Your task to perform on an android device: Clear the cart on amazon.com. Search for "jbl charge 4" on amazon.com, select the first entry, add it to the cart, then select checkout. Image 0: 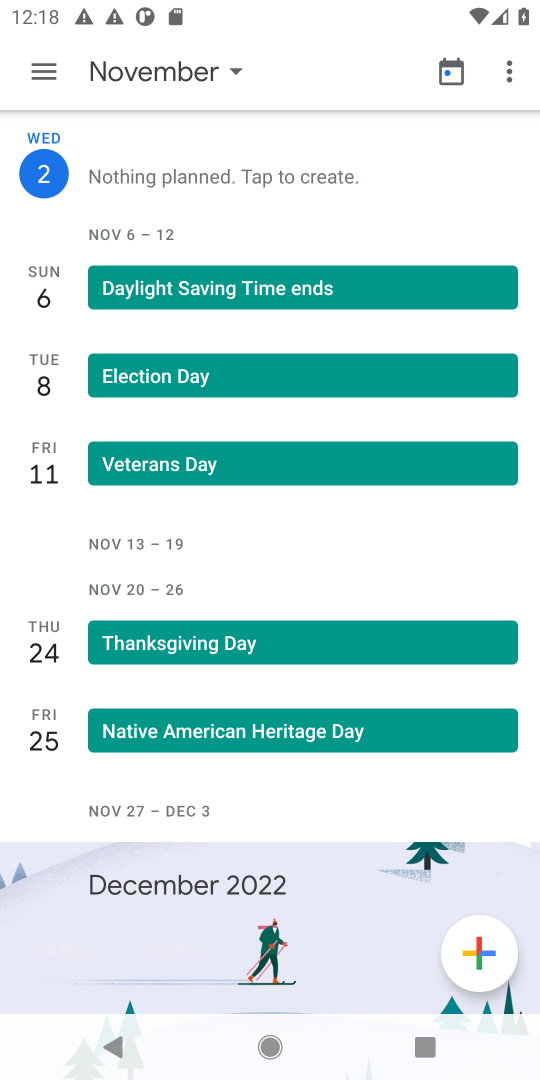
Step 0: press home button
Your task to perform on an android device: Clear the cart on amazon.com. Search for "jbl charge 4" on amazon.com, select the first entry, add it to the cart, then select checkout. Image 1: 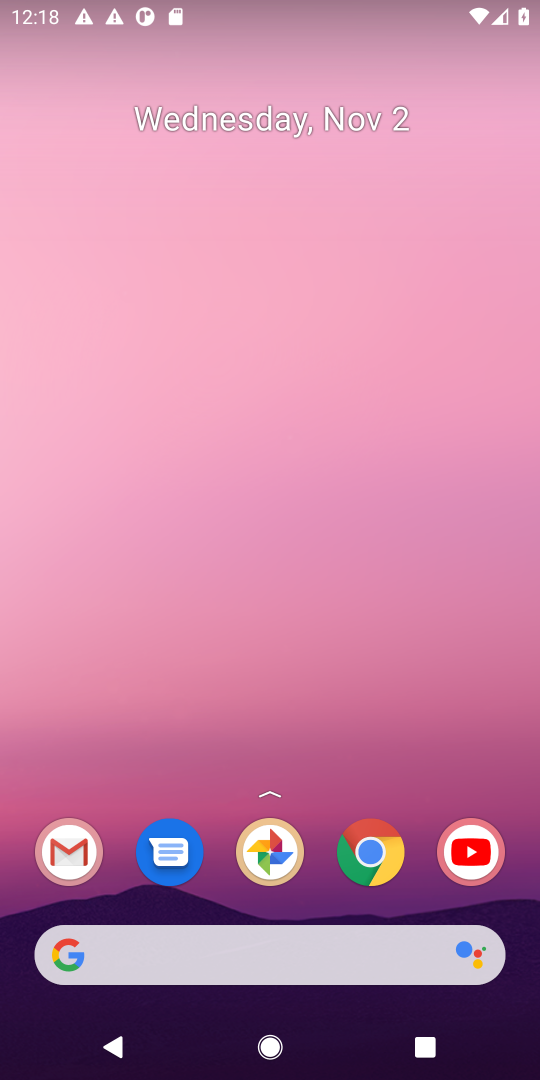
Step 1: click (64, 961)
Your task to perform on an android device: Clear the cart on amazon.com. Search for "jbl charge 4" on amazon.com, select the first entry, add it to the cart, then select checkout. Image 2: 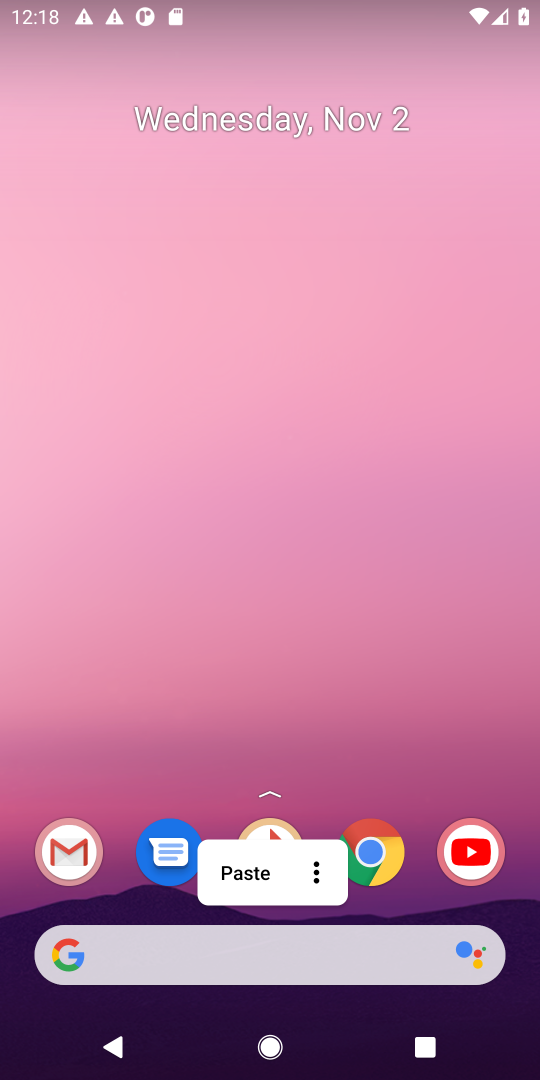
Step 2: click (69, 951)
Your task to perform on an android device: Clear the cart on amazon.com. Search for "jbl charge 4" on amazon.com, select the first entry, add it to the cart, then select checkout. Image 3: 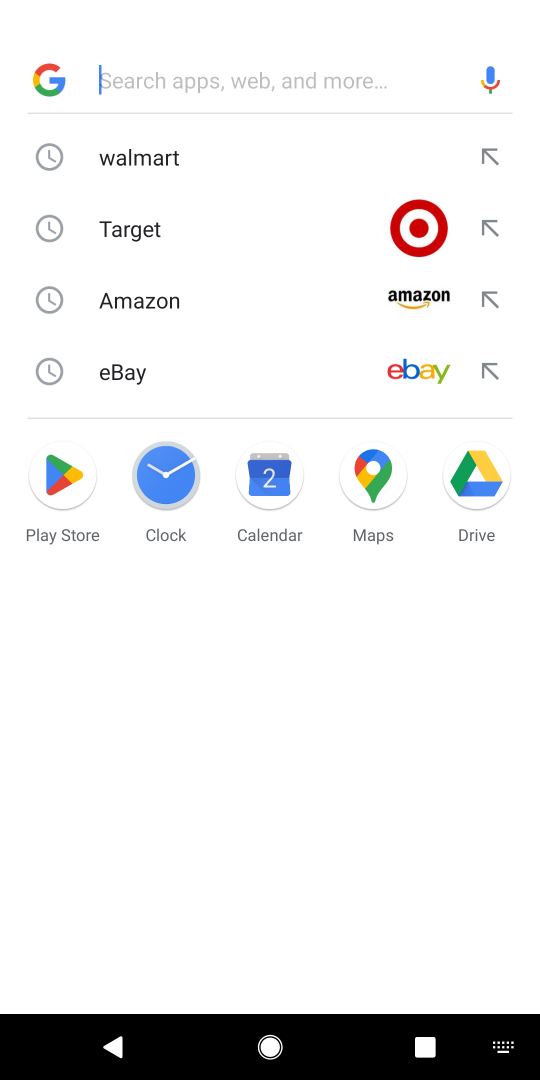
Step 3: click (125, 307)
Your task to perform on an android device: Clear the cart on amazon.com. Search for "jbl charge 4" on amazon.com, select the first entry, add it to the cart, then select checkout. Image 4: 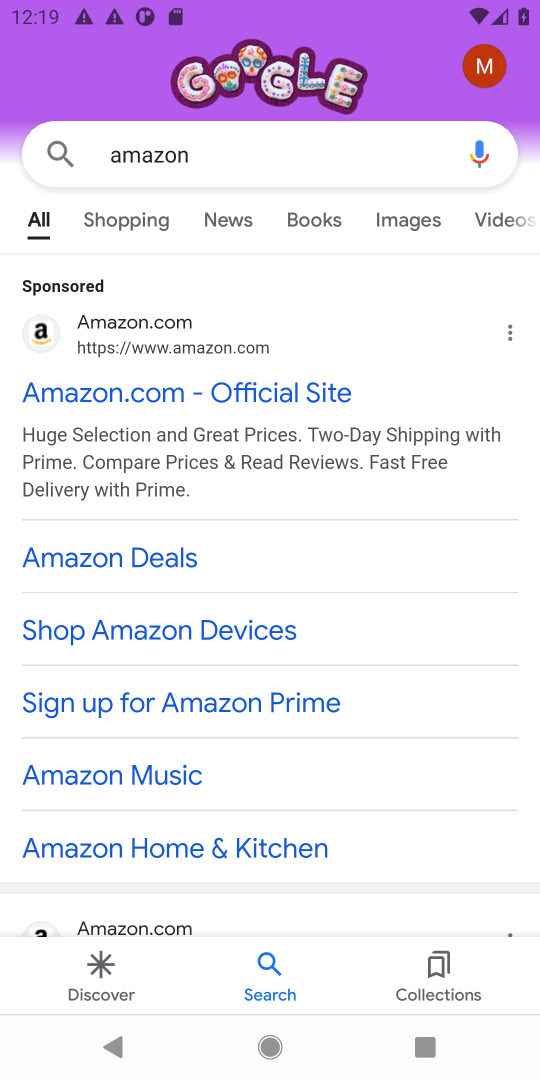
Step 4: drag from (370, 623) to (437, 167)
Your task to perform on an android device: Clear the cart on amazon.com. Search for "jbl charge 4" on amazon.com, select the first entry, add it to the cart, then select checkout. Image 5: 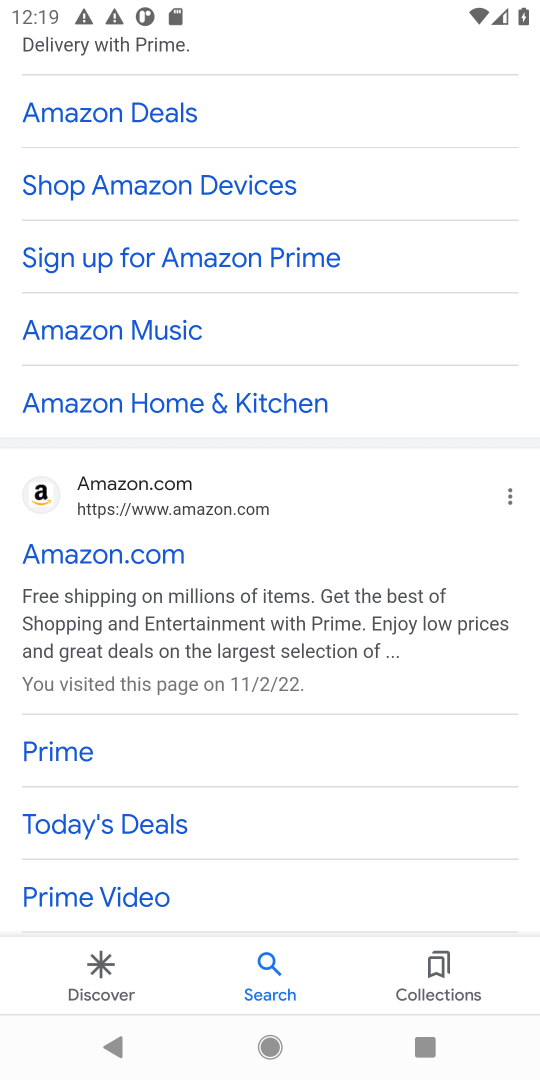
Step 5: click (116, 547)
Your task to perform on an android device: Clear the cart on amazon.com. Search for "jbl charge 4" on amazon.com, select the first entry, add it to the cart, then select checkout. Image 6: 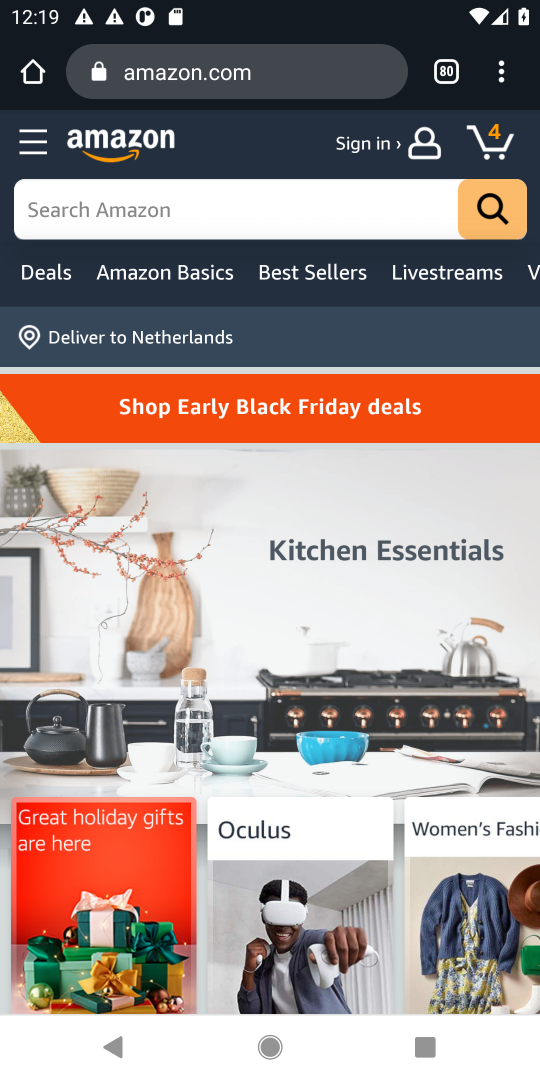
Step 6: click (150, 206)
Your task to perform on an android device: Clear the cart on amazon.com. Search for "jbl charge 4" on amazon.com, select the first entry, add it to the cart, then select checkout. Image 7: 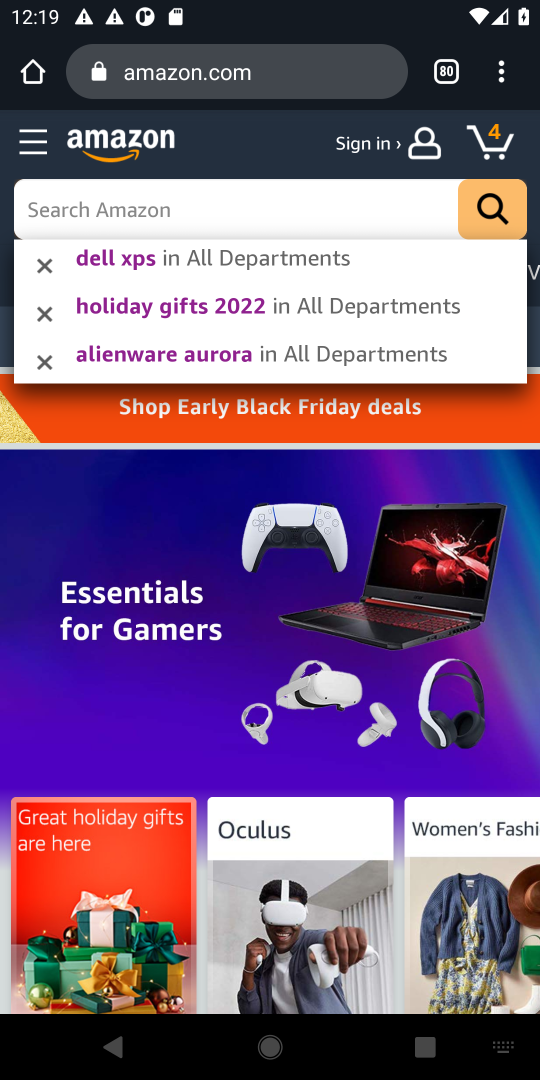
Step 7: type "jbl charge 4"
Your task to perform on an android device: Clear the cart on amazon.com. Search for "jbl charge 4" on amazon.com, select the first entry, add it to the cart, then select checkout. Image 8: 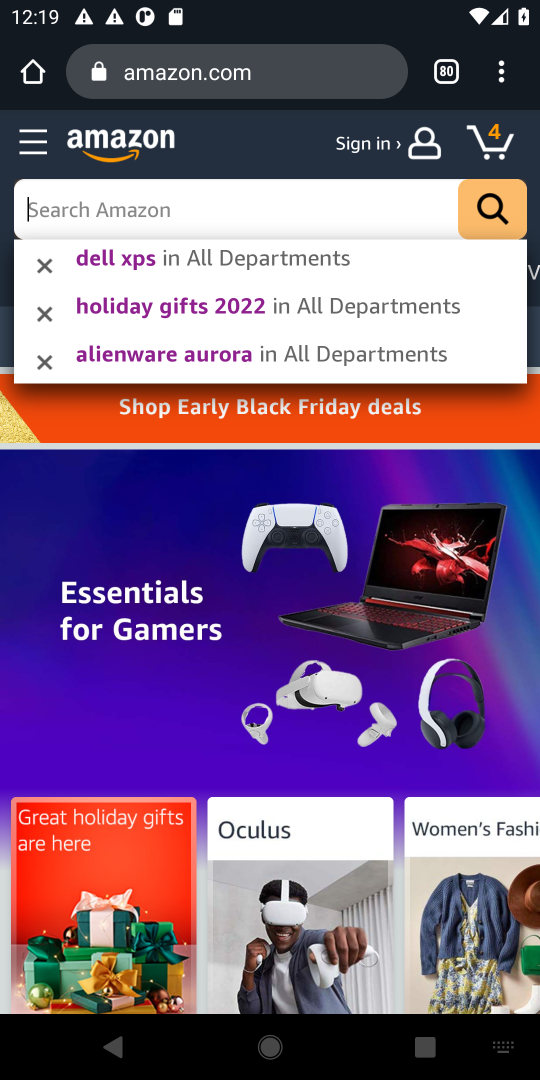
Step 8: click (130, 204)
Your task to perform on an android device: Clear the cart on amazon.com. Search for "jbl charge 4" on amazon.com, select the first entry, add it to the cart, then select checkout. Image 9: 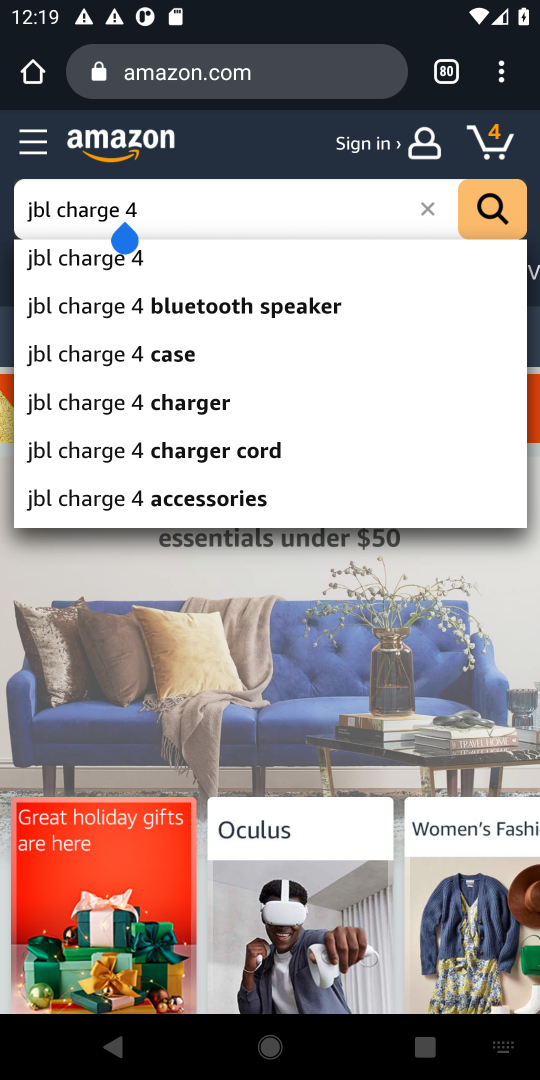
Step 9: press enter
Your task to perform on an android device: Clear the cart on amazon.com. Search for "jbl charge 4" on amazon.com, select the first entry, add it to the cart, then select checkout. Image 10: 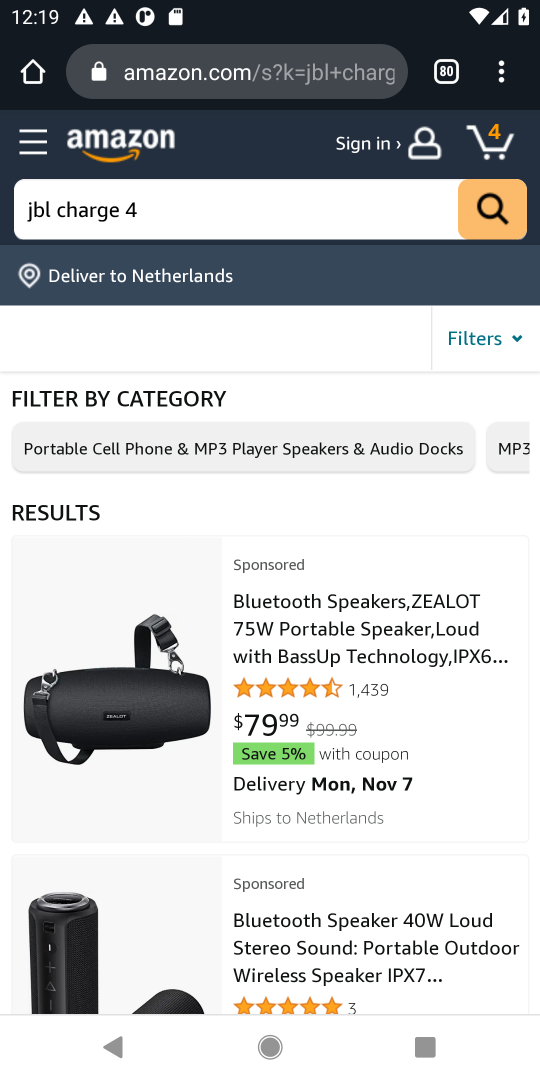
Step 10: drag from (355, 980) to (405, 517)
Your task to perform on an android device: Clear the cart on amazon.com. Search for "jbl charge 4" on amazon.com, select the first entry, add it to the cart, then select checkout. Image 11: 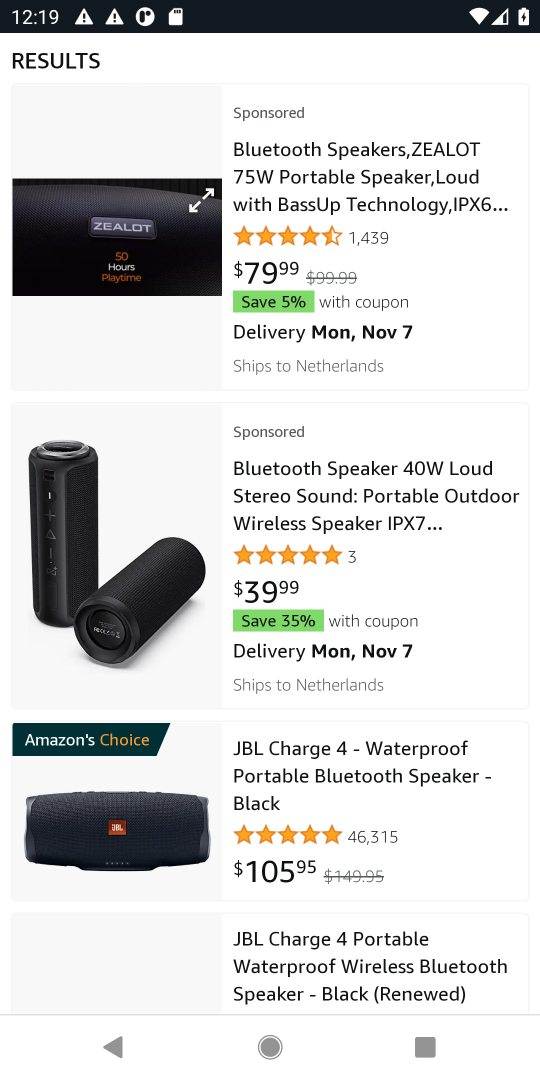
Step 11: click (351, 744)
Your task to perform on an android device: Clear the cart on amazon.com. Search for "jbl charge 4" on amazon.com, select the first entry, add it to the cart, then select checkout. Image 12: 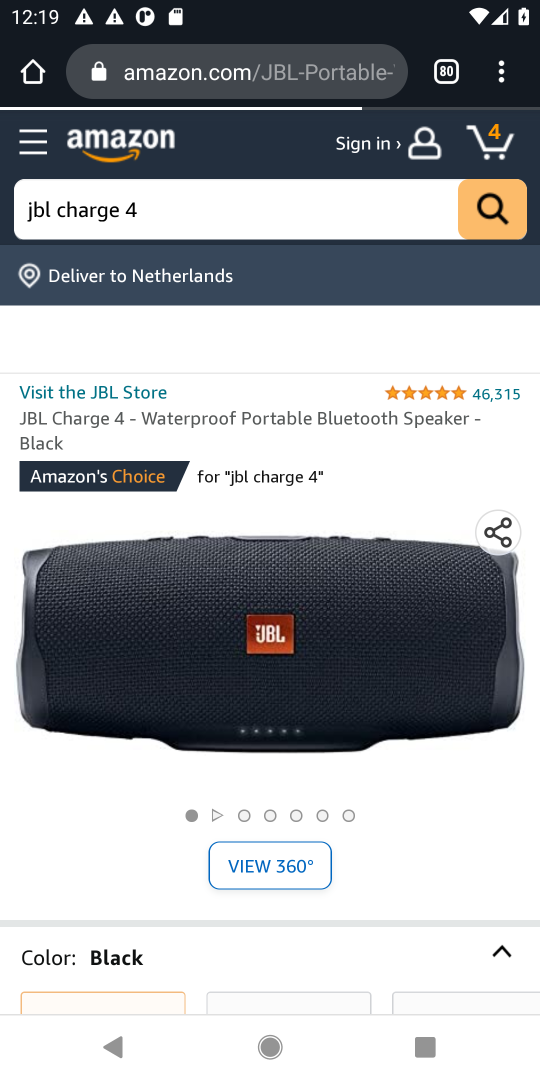
Step 12: task complete